Your task to perform on an android device: Open Reddit.com Image 0: 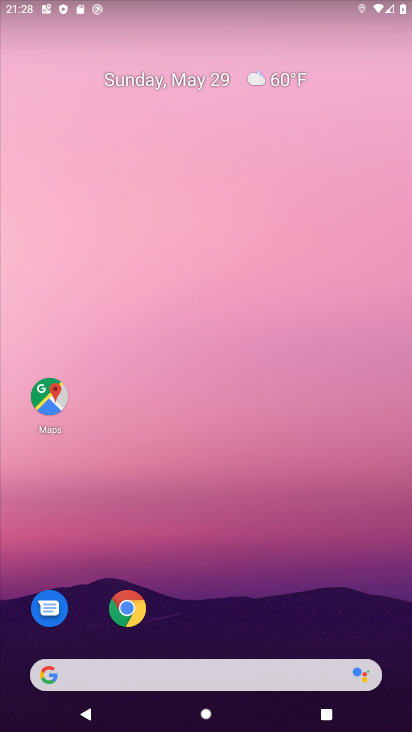
Step 0: drag from (367, 612) to (355, 222)
Your task to perform on an android device: Open Reddit.com Image 1: 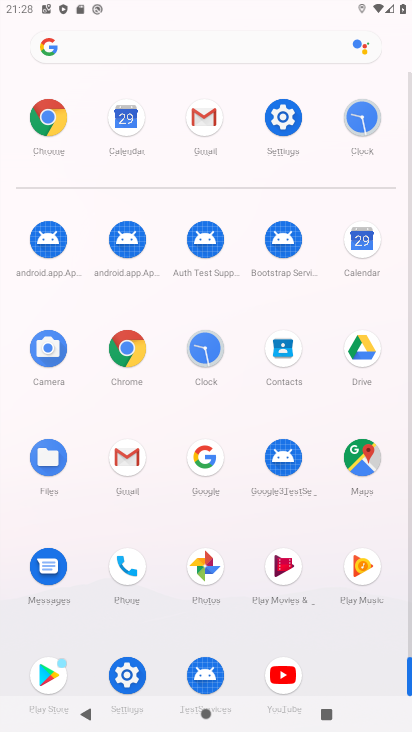
Step 1: click (137, 352)
Your task to perform on an android device: Open Reddit.com Image 2: 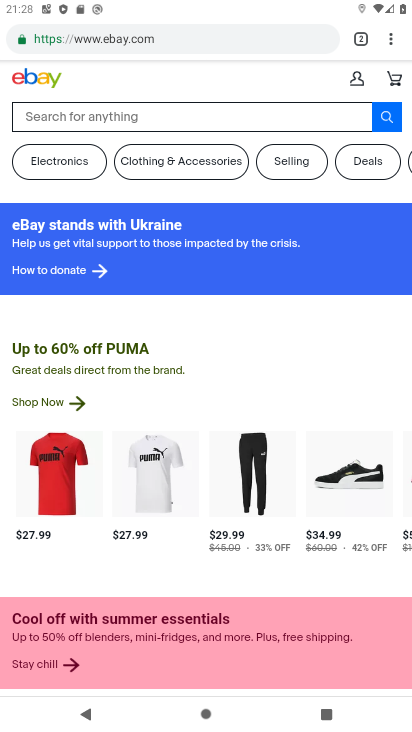
Step 2: click (202, 38)
Your task to perform on an android device: Open Reddit.com Image 3: 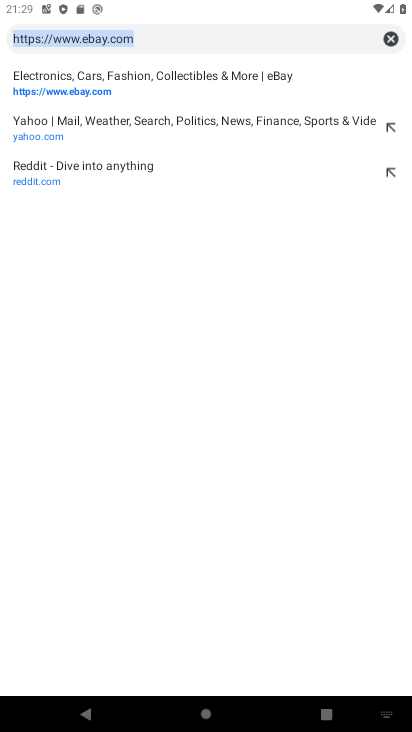
Step 3: click (389, 36)
Your task to perform on an android device: Open Reddit.com Image 4: 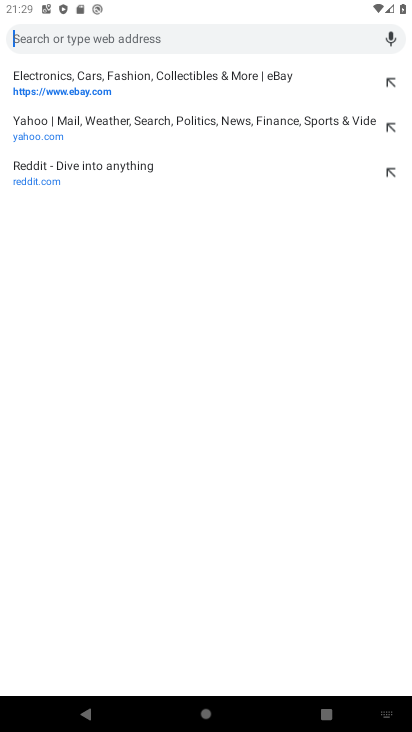
Step 4: type "reddit.com"
Your task to perform on an android device: Open Reddit.com Image 5: 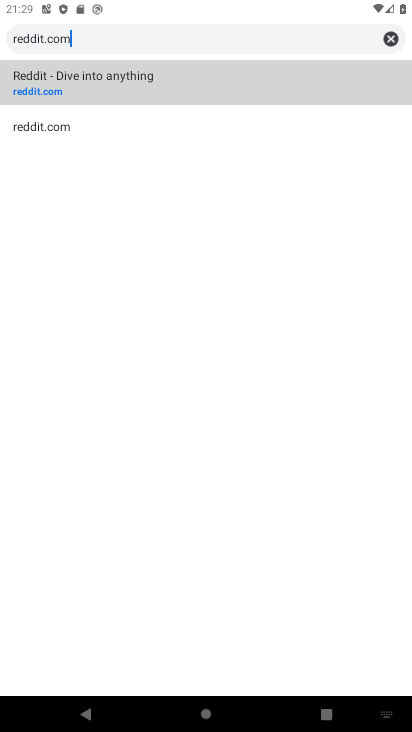
Step 5: click (92, 129)
Your task to perform on an android device: Open Reddit.com Image 6: 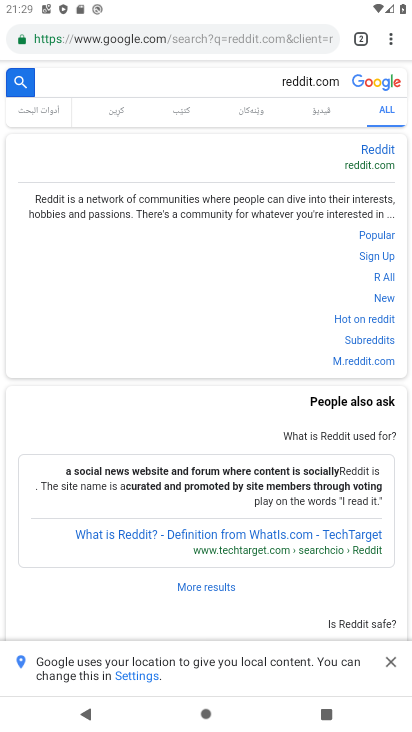
Step 6: task complete